Your task to perform on an android device: Go to Wikipedia Image 0: 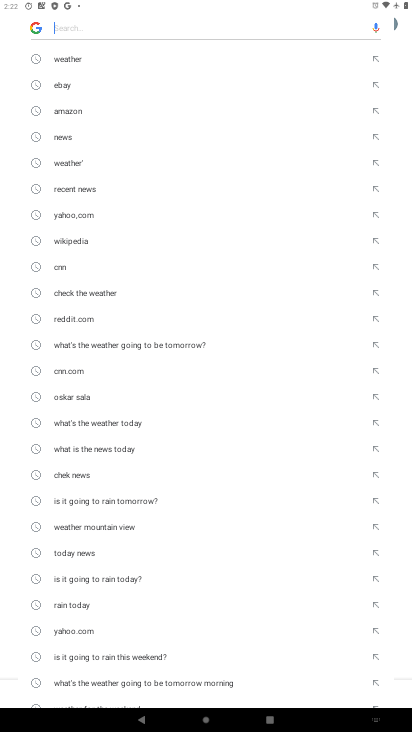
Step 0: press home button
Your task to perform on an android device: Go to Wikipedia Image 1: 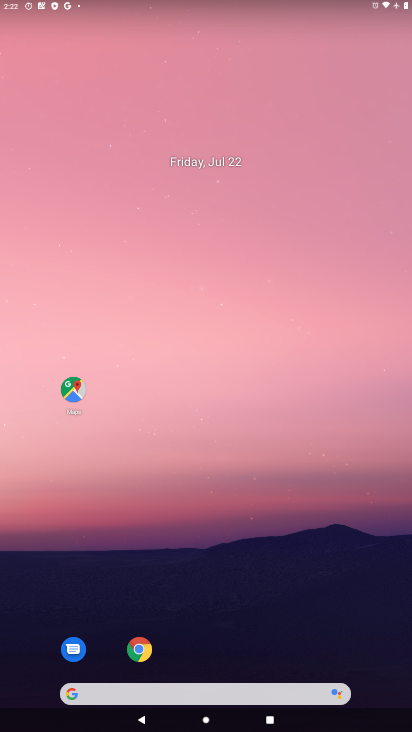
Step 1: drag from (266, 627) to (299, 82)
Your task to perform on an android device: Go to Wikipedia Image 2: 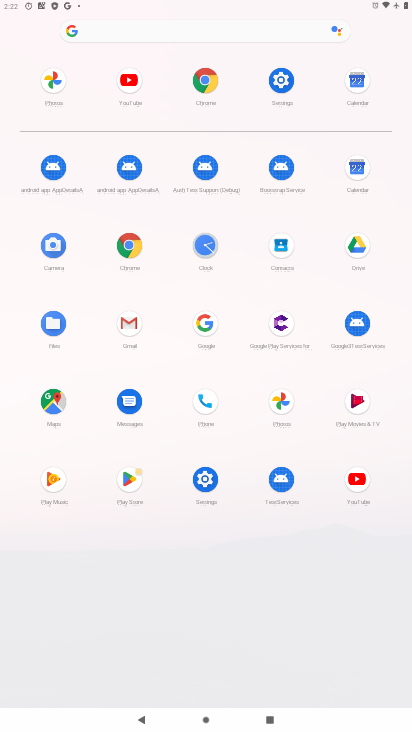
Step 2: click (203, 74)
Your task to perform on an android device: Go to Wikipedia Image 3: 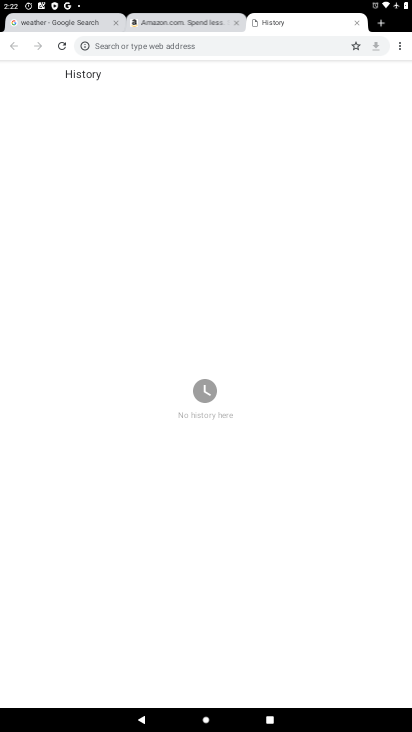
Step 3: click (253, 43)
Your task to perform on an android device: Go to Wikipedia Image 4: 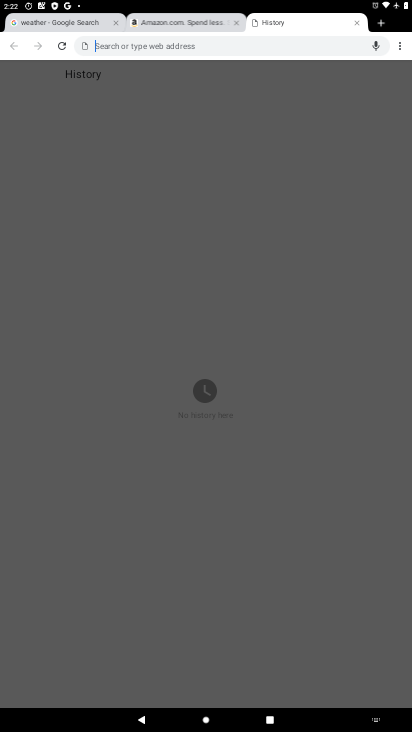
Step 4: type "wikipedia"
Your task to perform on an android device: Go to Wikipedia Image 5: 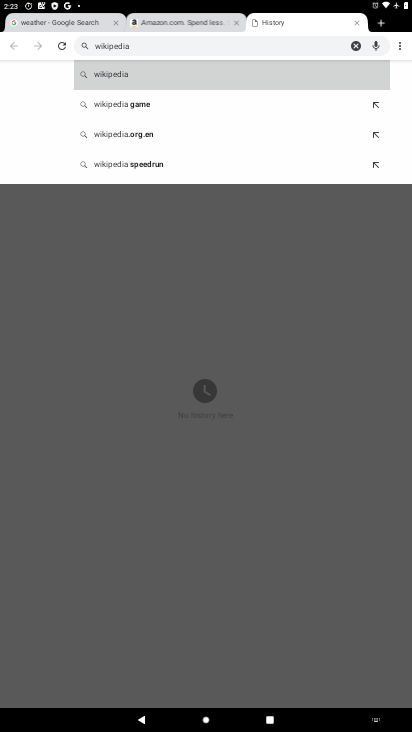
Step 5: click (109, 63)
Your task to perform on an android device: Go to Wikipedia Image 6: 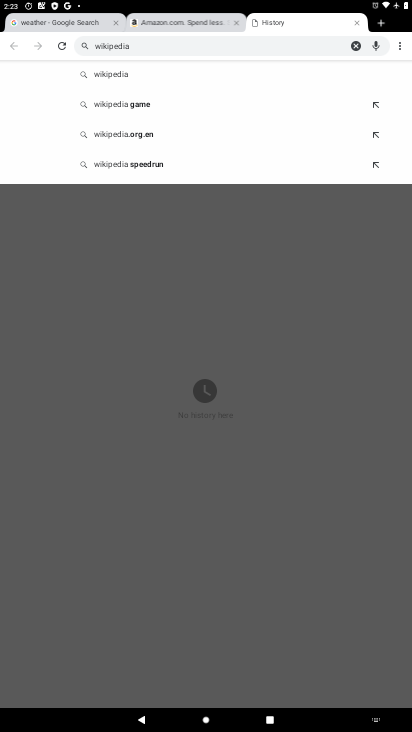
Step 6: click (143, 73)
Your task to perform on an android device: Go to Wikipedia Image 7: 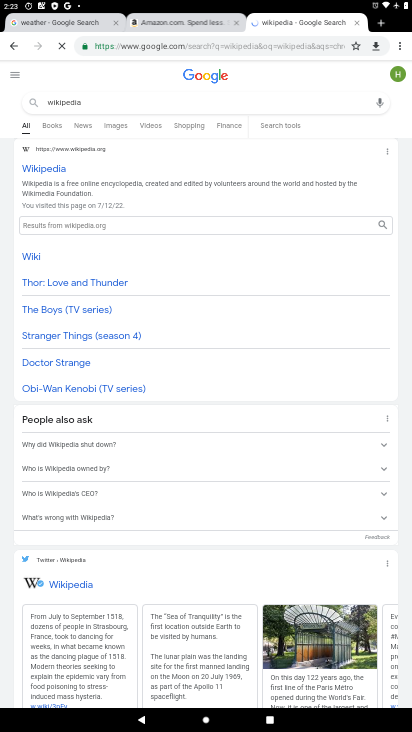
Step 7: click (51, 168)
Your task to perform on an android device: Go to Wikipedia Image 8: 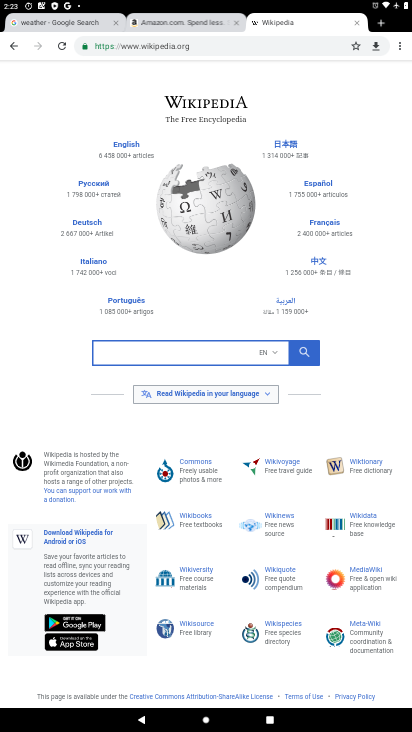
Step 8: task complete